Your task to perform on an android device: turn pop-ups off in chrome Image 0: 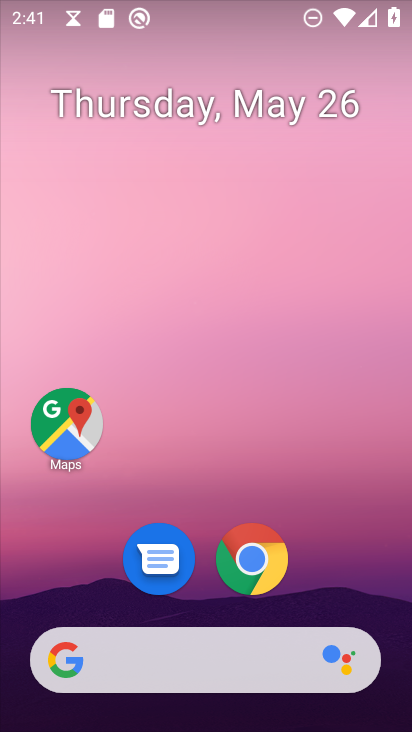
Step 0: click (276, 571)
Your task to perform on an android device: turn pop-ups off in chrome Image 1: 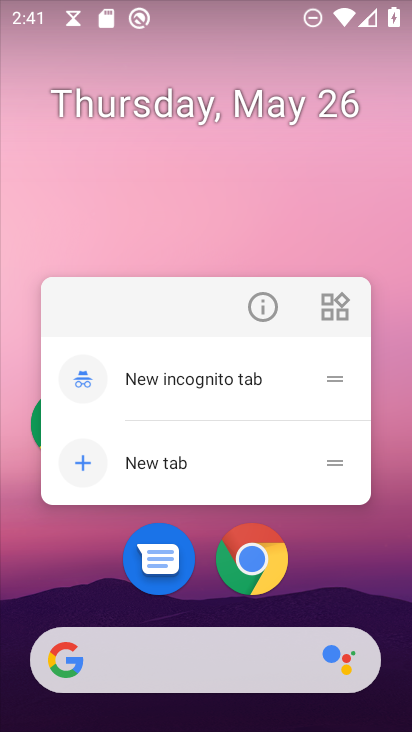
Step 1: click (261, 584)
Your task to perform on an android device: turn pop-ups off in chrome Image 2: 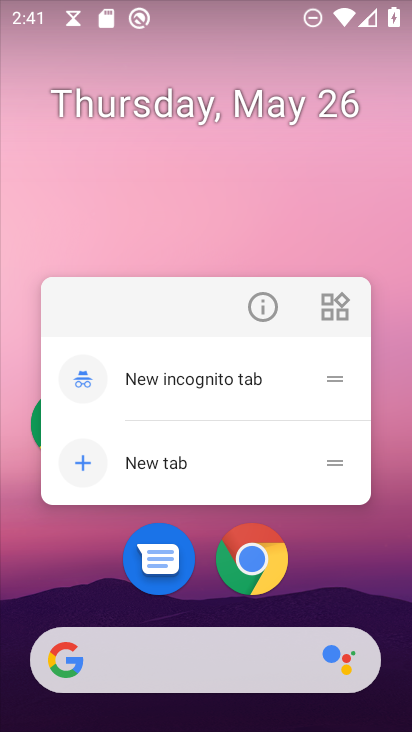
Step 2: click (263, 565)
Your task to perform on an android device: turn pop-ups off in chrome Image 3: 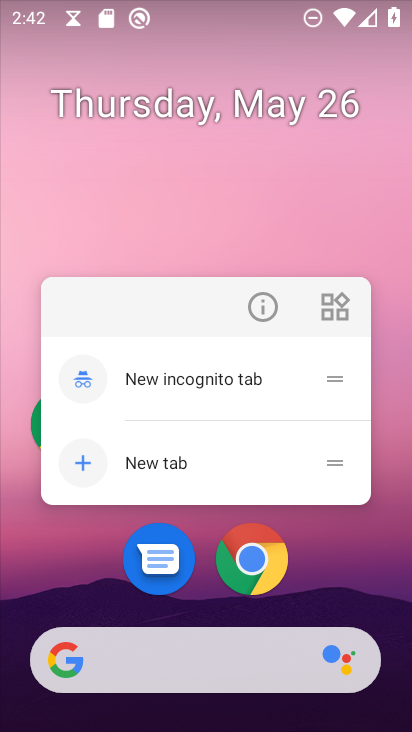
Step 3: click (259, 551)
Your task to perform on an android device: turn pop-ups off in chrome Image 4: 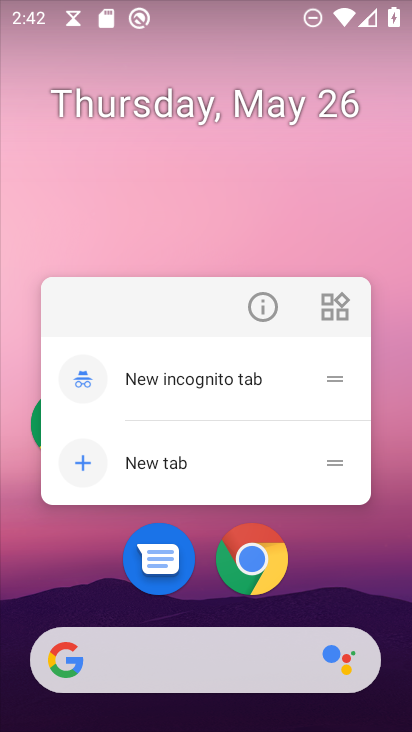
Step 4: click (254, 569)
Your task to perform on an android device: turn pop-ups off in chrome Image 5: 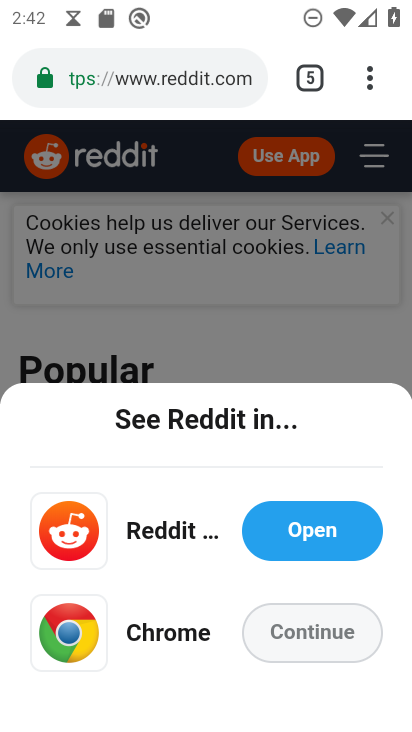
Step 5: drag from (372, 91) to (189, 596)
Your task to perform on an android device: turn pop-ups off in chrome Image 6: 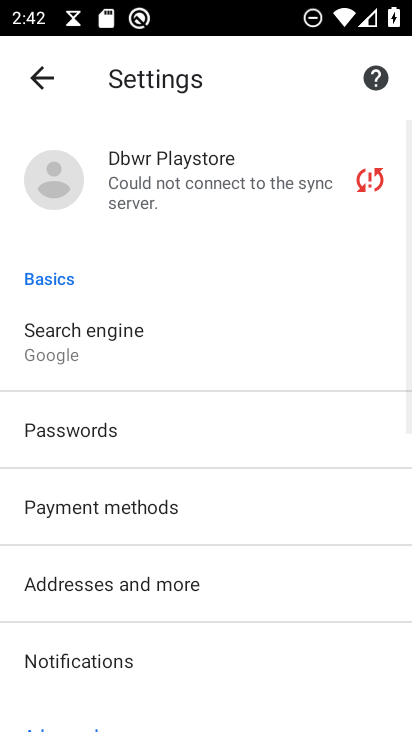
Step 6: drag from (168, 650) to (370, 279)
Your task to perform on an android device: turn pop-ups off in chrome Image 7: 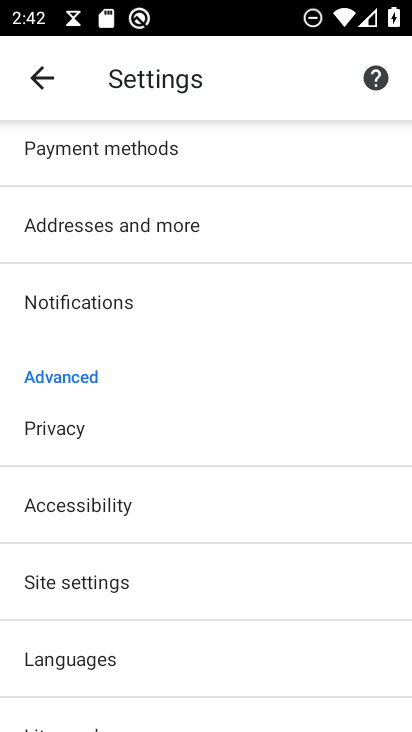
Step 7: click (114, 573)
Your task to perform on an android device: turn pop-ups off in chrome Image 8: 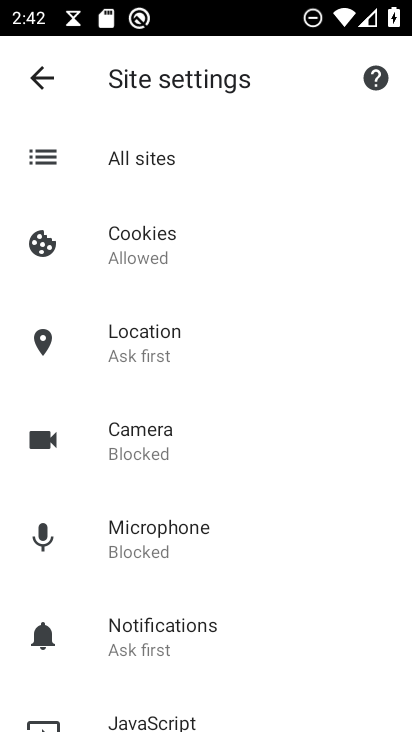
Step 8: drag from (218, 591) to (335, 255)
Your task to perform on an android device: turn pop-ups off in chrome Image 9: 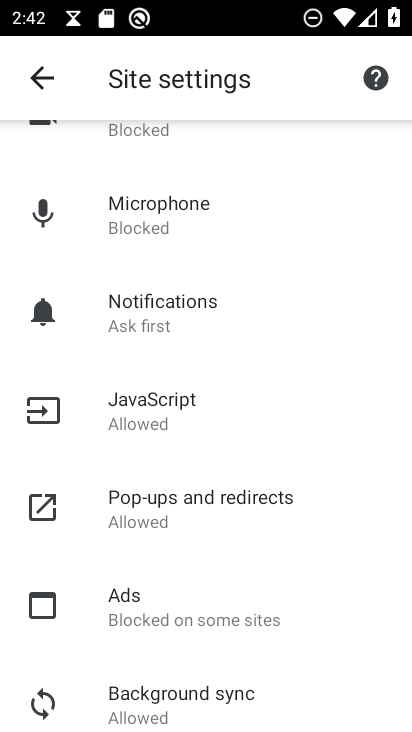
Step 9: click (241, 490)
Your task to perform on an android device: turn pop-ups off in chrome Image 10: 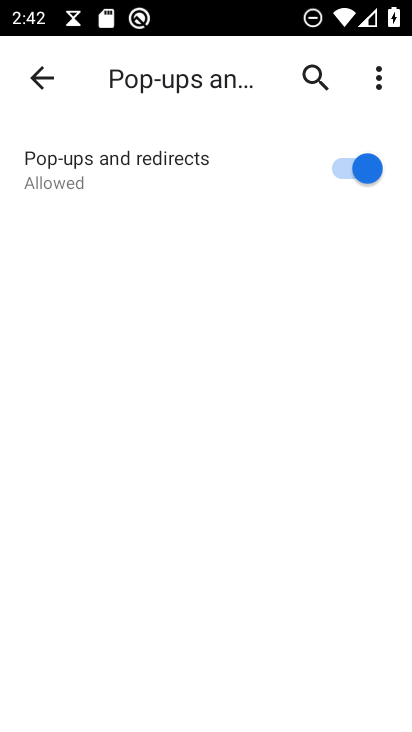
Step 10: click (346, 167)
Your task to perform on an android device: turn pop-ups off in chrome Image 11: 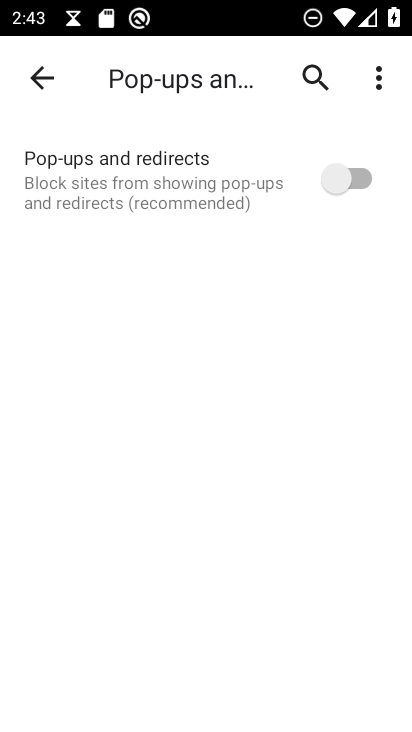
Step 11: task complete